Your task to perform on an android device: install app "VLC for Android" Image 0: 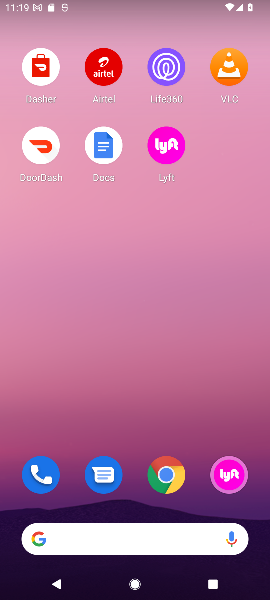
Step 0: drag from (141, 497) to (105, 193)
Your task to perform on an android device: install app "VLC for Android" Image 1: 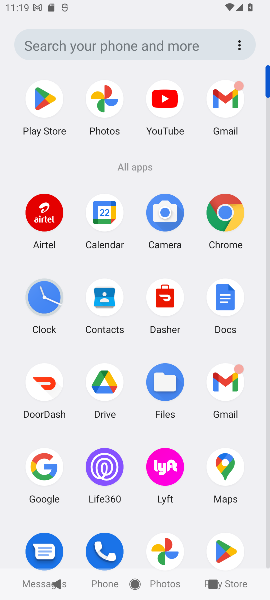
Step 1: click (45, 94)
Your task to perform on an android device: install app "VLC for Android" Image 2: 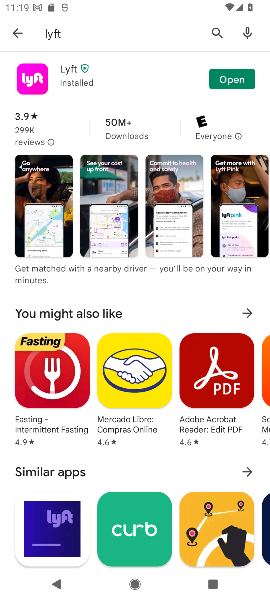
Step 2: click (16, 27)
Your task to perform on an android device: install app "VLC for Android" Image 3: 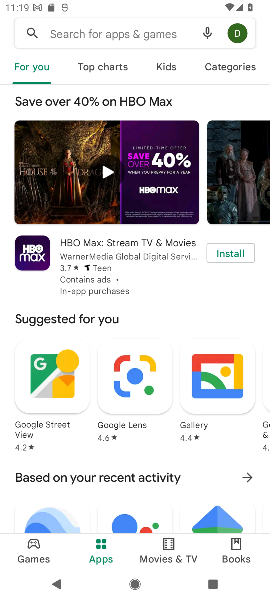
Step 3: click (85, 27)
Your task to perform on an android device: install app "VLC for Android" Image 4: 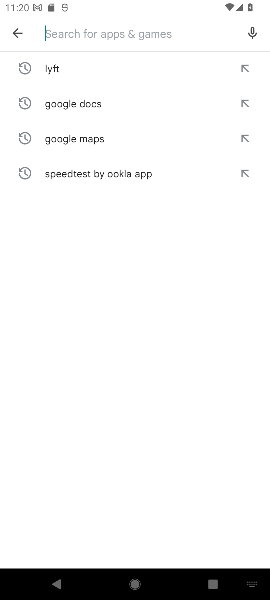
Step 4: type "VLC for Android"
Your task to perform on an android device: install app "VLC for Android" Image 5: 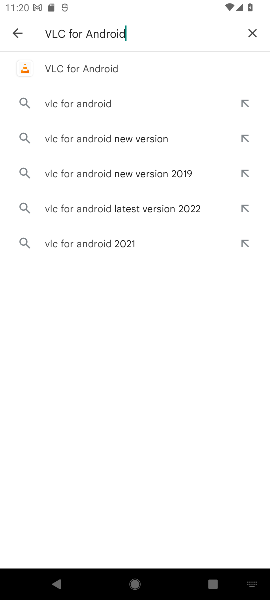
Step 5: click (64, 62)
Your task to perform on an android device: install app "VLC for Android" Image 6: 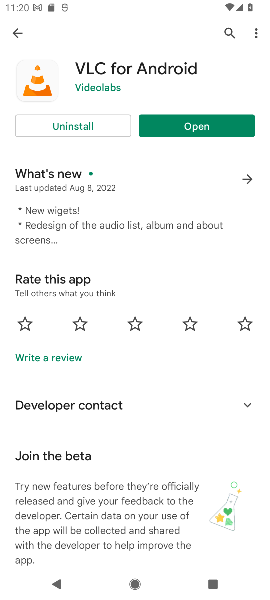
Step 6: click (171, 125)
Your task to perform on an android device: install app "VLC for Android" Image 7: 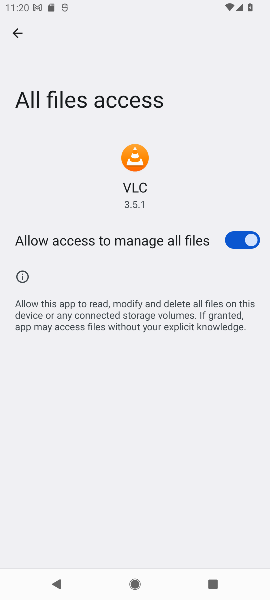
Step 7: task complete